Your task to perform on an android device: Open the map Image 0: 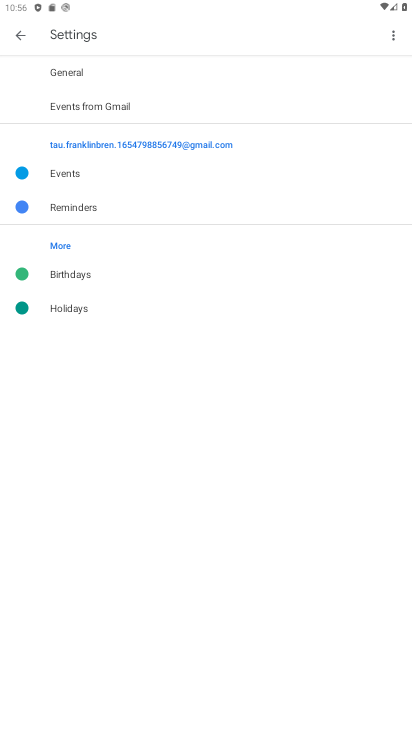
Step 0: press home button
Your task to perform on an android device: Open the map Image 1: 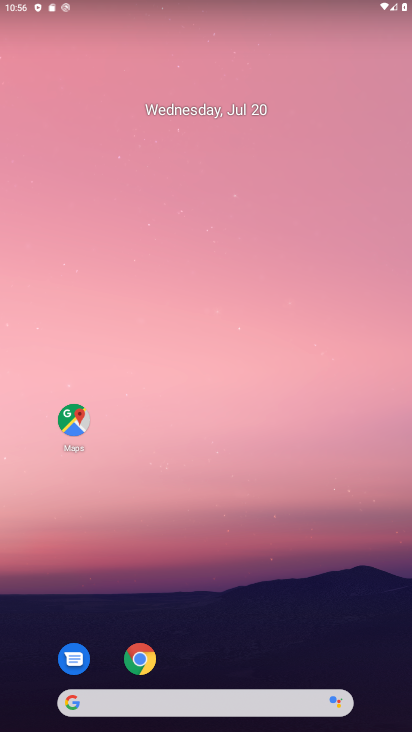
Step 1: click (75, 415)
Your task to perform on an android device: Open the map Image 2: 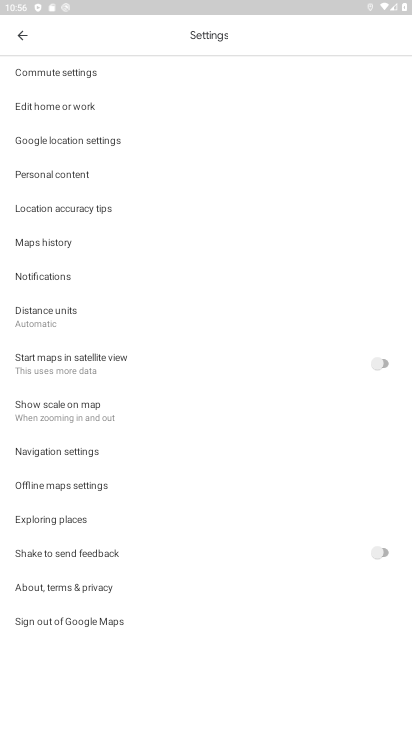
Step 2: click (22, 35)
Your task to perform on an android device: Open the map Image 3: 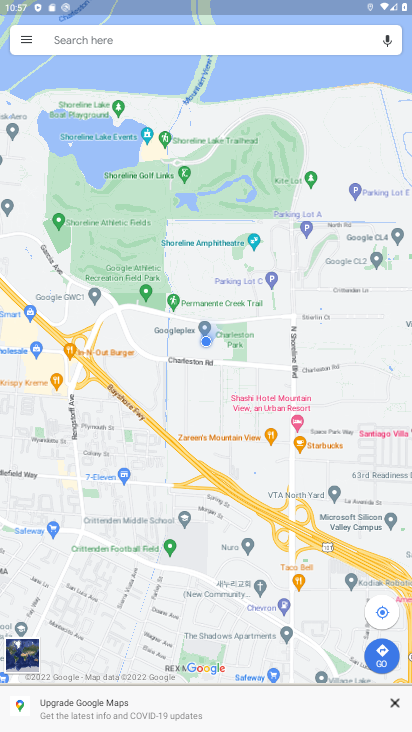
Step 3: task complete